Your task to perform on an android device: delete the emails in spam in the gmail app Image 0: 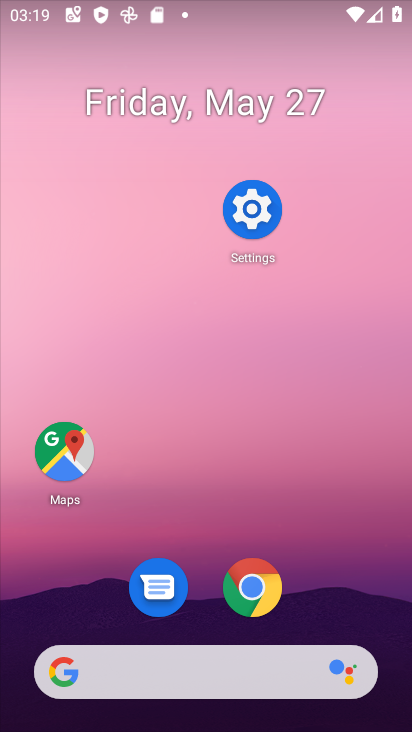
Step 0: drag from (378, 280) to (385, 112)
Your task to perform on an android device: delete the emails in spam in the gmail app Image 1: 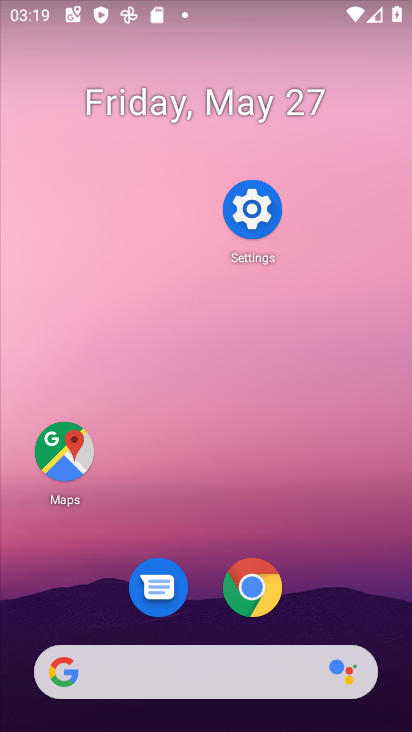
Step 1: drag from (338, 512) to (240, 5)
Your task to perform on an android device: delete the emails in spam in the gmail app Image 2: 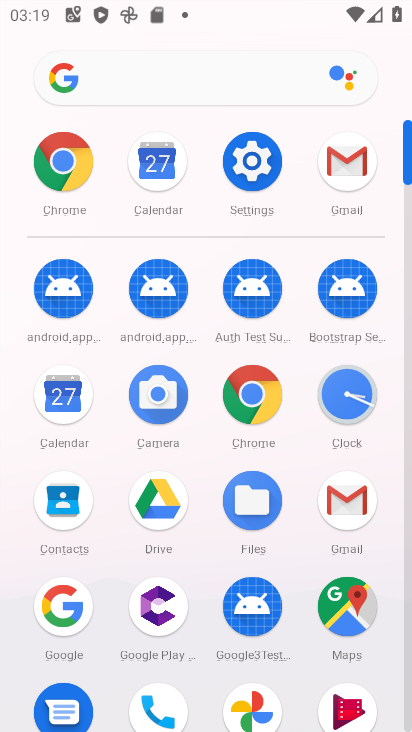
Step 2: click (354, 166)
Your task to perform on an android device: delete the emails in spam in the gmail app Image 3: 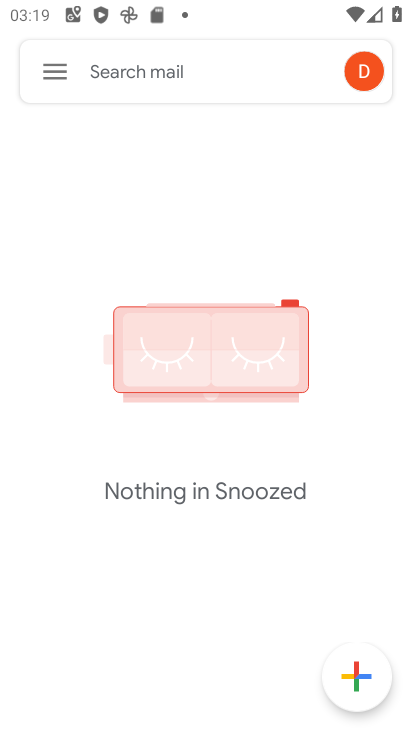
Step 3: click (49, 70)
Your task to perform on an android device: delete the emails in spam in the gmail app Image 4: 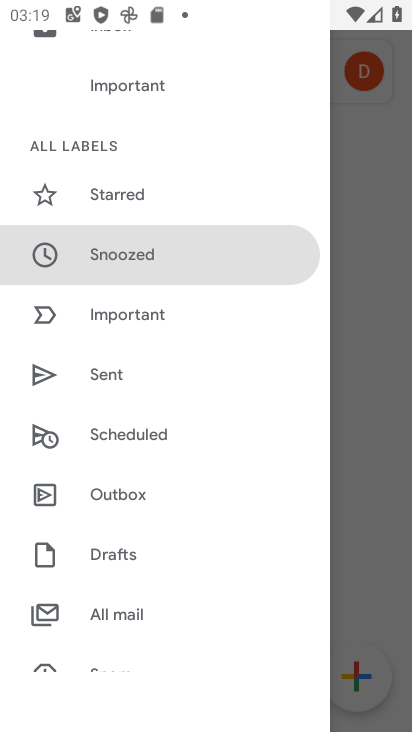
Step 4: drag from (236, 648) to (249, 378)
Your task to perform on an android device: delete the emails in spam in the gmail app Image 5: 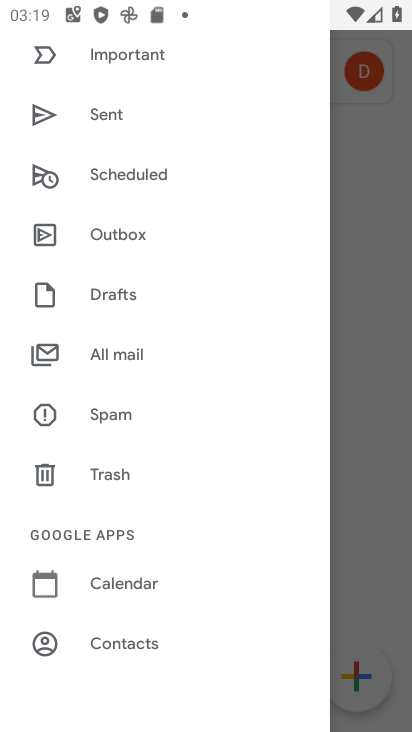
Step 5: click (88, 411)
Your task to perform on an android device: delete the emails in spam in the gmail app Image 6: 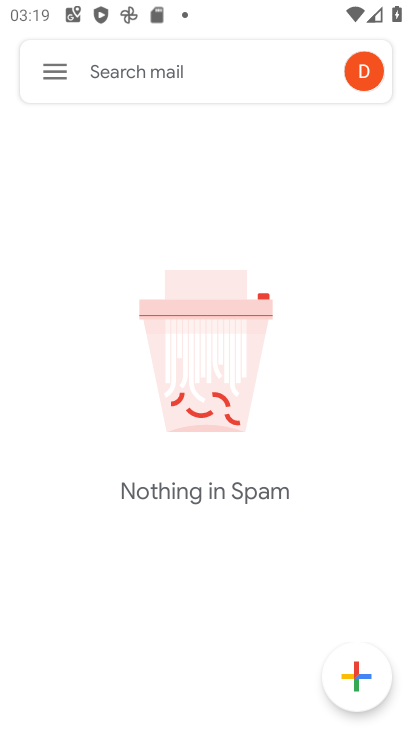
Step 6: task complete